Your task to perform on an android device: open chrome and create a bookmark for the current page Image 0: 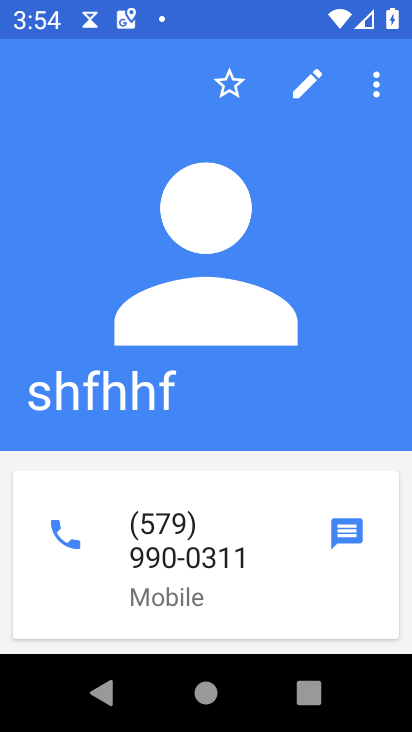
Step 0: press home button
Your task to perform on an android device: open chrome and create a bookmark for the current page Image 1: 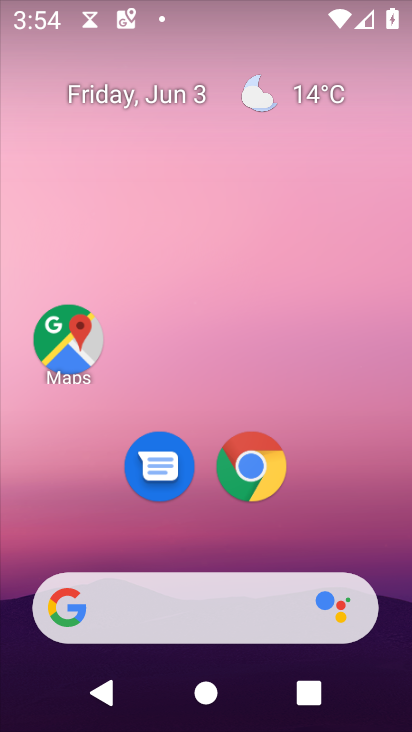
Step 1: drag from (373, 519) to (305, 10)
Your task to perform on an android device: open chrome and create a bookmark for the current page Image 2: 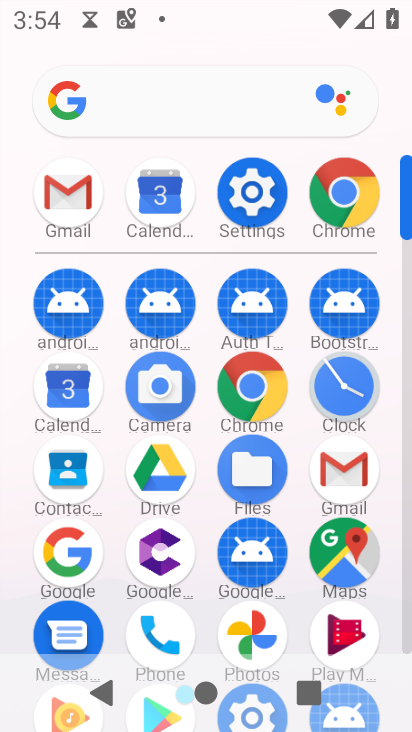
Step 2: click (256, 386)
Your task to perform on an android device: open chrome and create a bookmark for the current page Image 3: 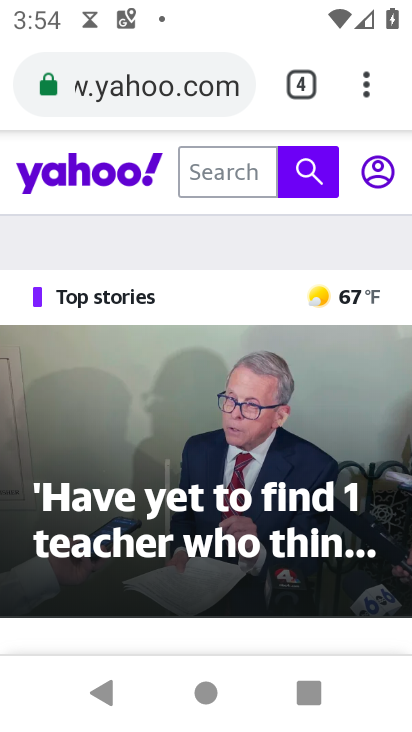
Step 3: click (367, 82)
Your task to perform on an android device: open chrome and create a bookmark for the current page Image 4: 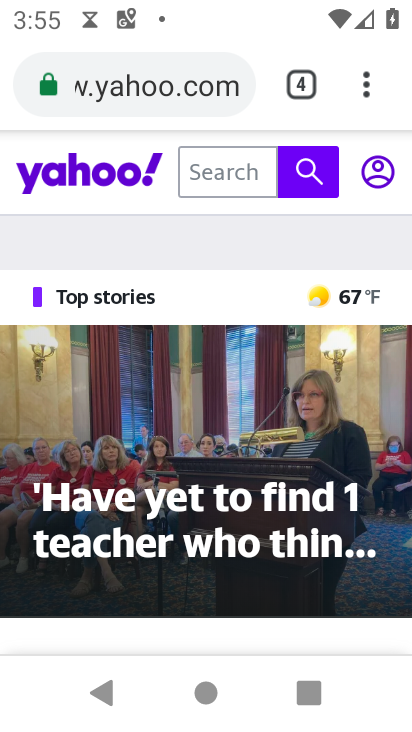
Step 4: click (363, 93)
Your task to perform on an android device: open chrome and create a bookmark for the current page Image 5: 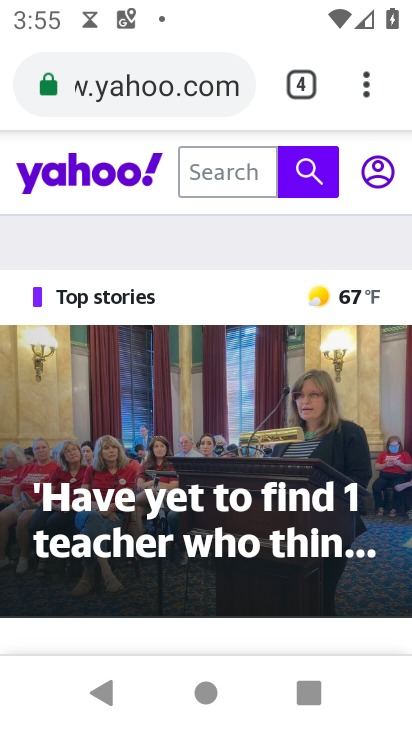
Step 5: click (359, 86)
Your task to perform on an android device: open chrome and create a bookmark for the current page Image 6: 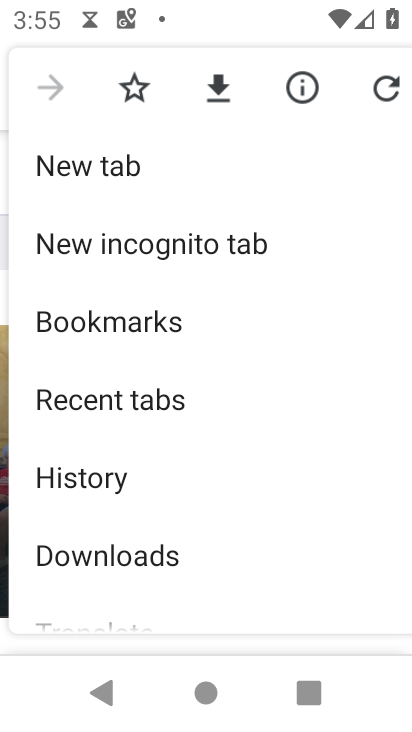
Step 6: click (126, 88)
Your task to perform on an android device: open chrome and create a bookmark for the current page Image 7: 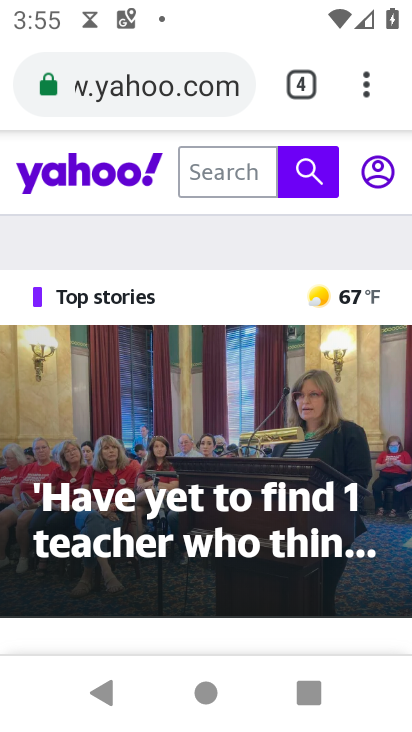
Step 7: task complete